Your task to perform on an android device: Go to eBay Image 0: 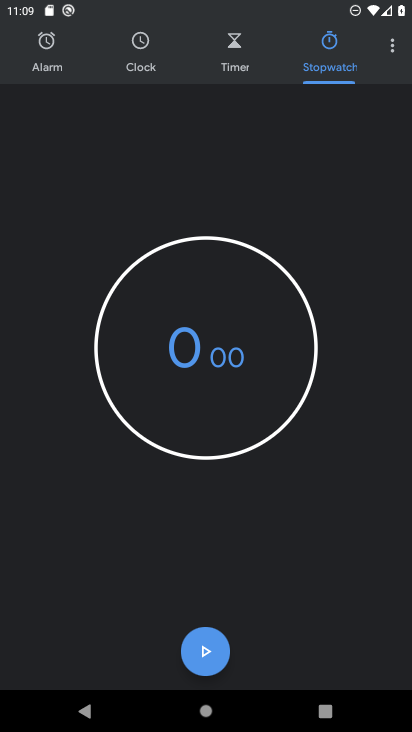
Step 0: press home button
Your task to perform on an android device: Go to eBay Image 1: 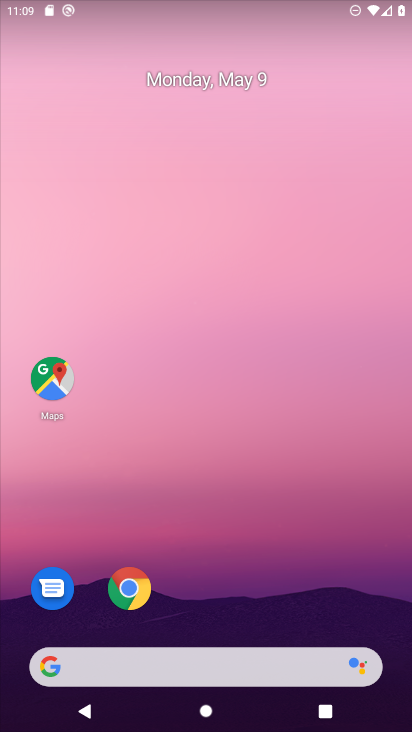
Step 1: click (132, 579)
Your task to perform on an android device: Go to eBay Image 2: 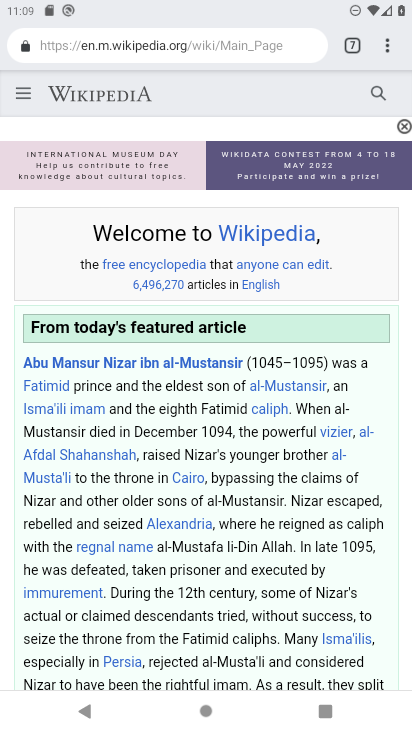
Step 2: click (303, 51)
Your task to perform on an android device: Go to eBay Image 3: 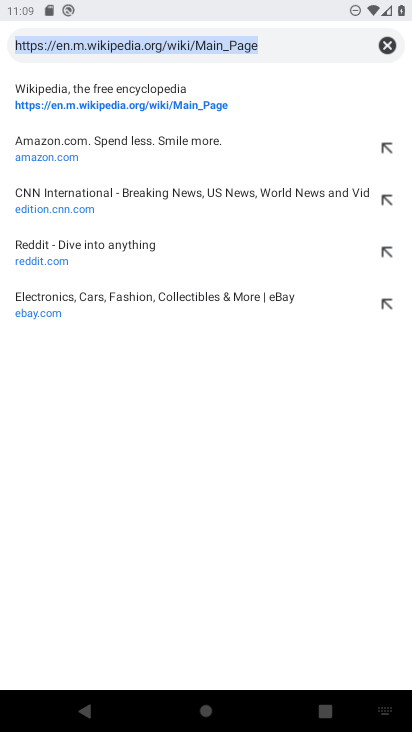
Step 3: type "ebay.com"
Your task to perform on an android device: Go to eBay Image 4: 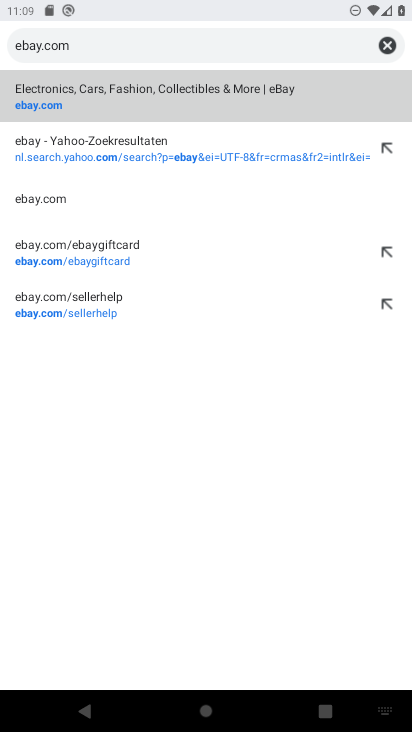
Step 4: click (224, 105)
Your task to perform on an android device: Go to eBay Image 5: 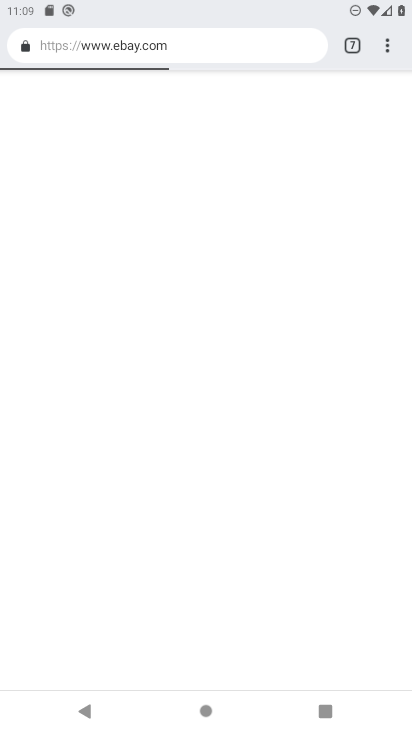
Step 5: task complete